Your task to perform on an android device: check android version Image 0: 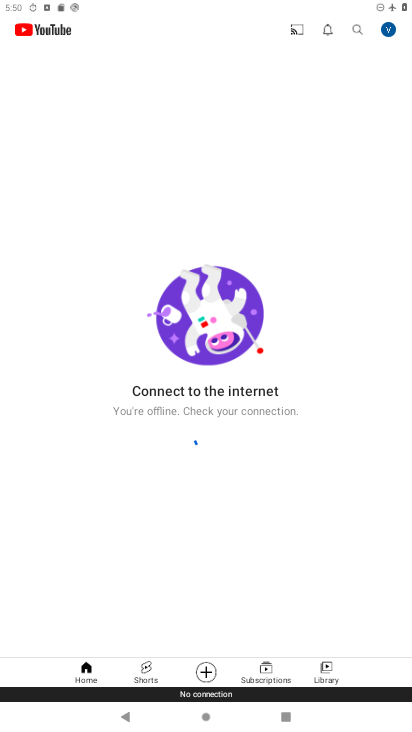
Step 0: press home button
Your task to perform on an android device: check android version Image 1: 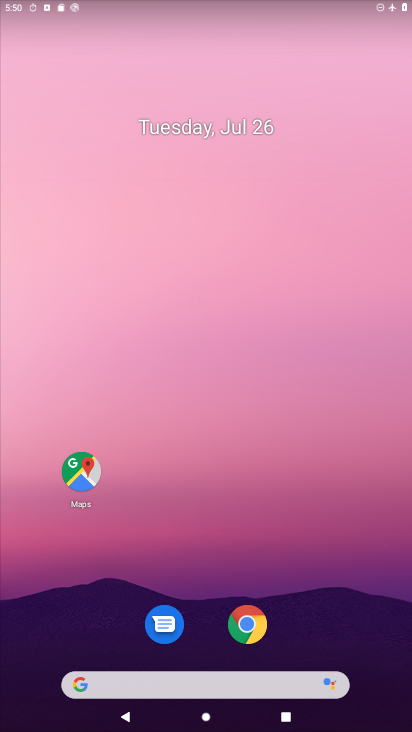
Step 1: drag from (168, 663) to (177, 111)
Your task to perform on an android device: check android version Image 2: 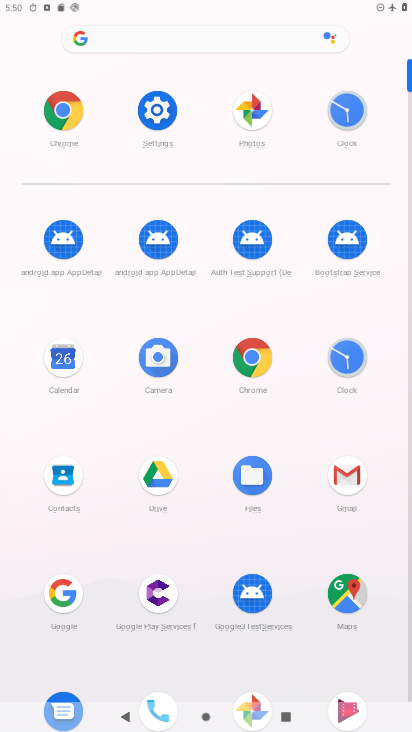
Step 2: click (145, 109)
Your task to perform on an android device: check android version Image 3: 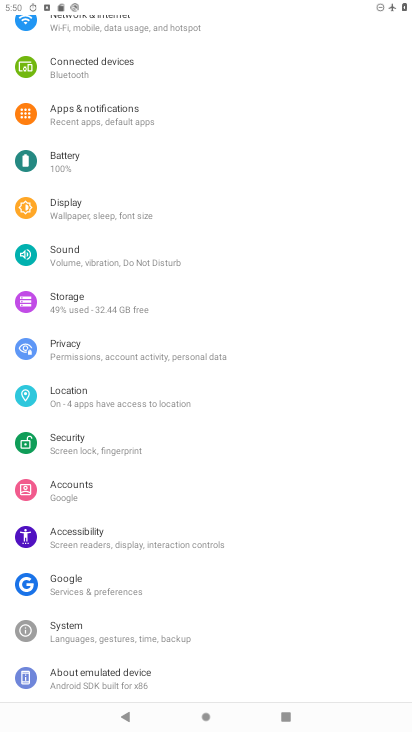
Step 3: drag from (261, 622) to (281, 144)
Your task to perform on an android device: check android version Image 4: 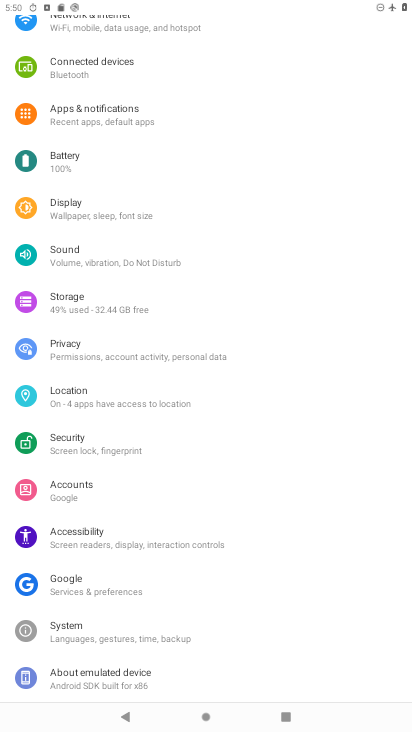
Step 4: click (174, 687)
Your task to perform on an android device: check android version Image 5: 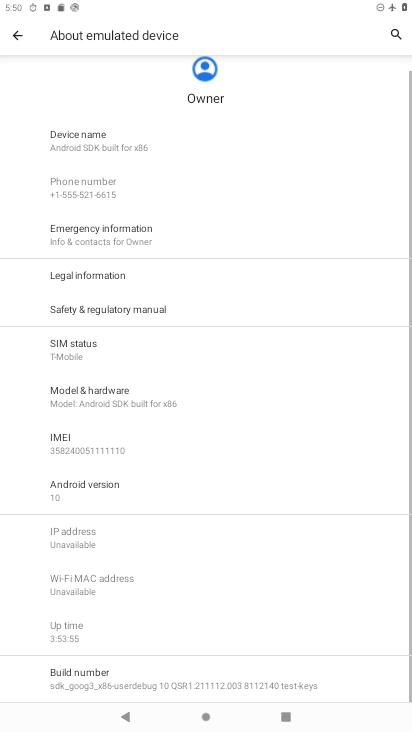
Step 5: click (101, 495)
Your task to perform on an android device: check android version Image 6: 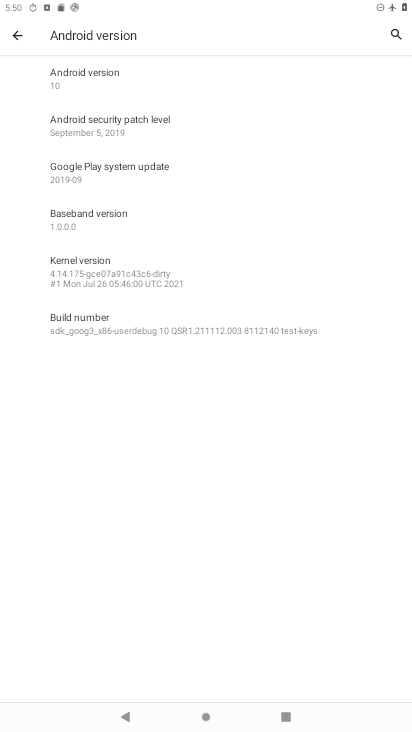
Step 6: click (116, 79)
Your task to perform on an android device: check android version Image 7: 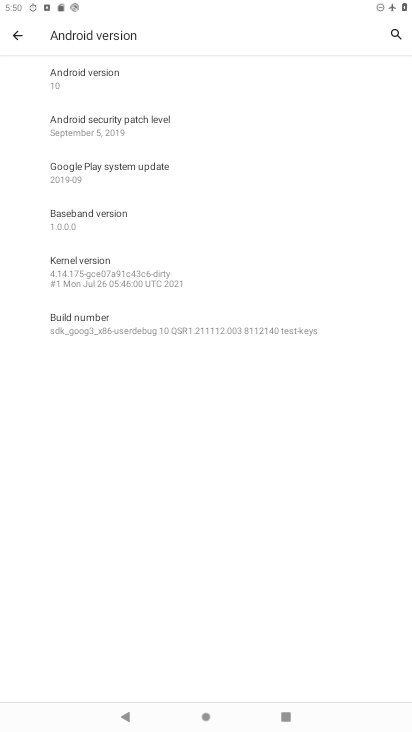
Step 7: task complete